Your task to perform on an android device: Open battery settings Image 0: 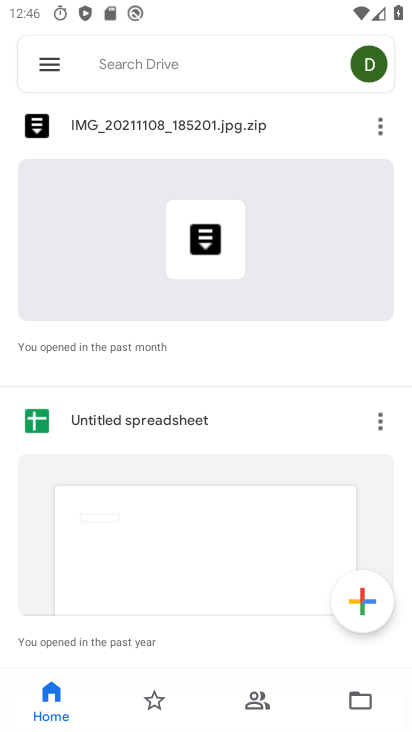
Step 0: press back button
Your task to perform on an android device: Open battery settings Image 1: 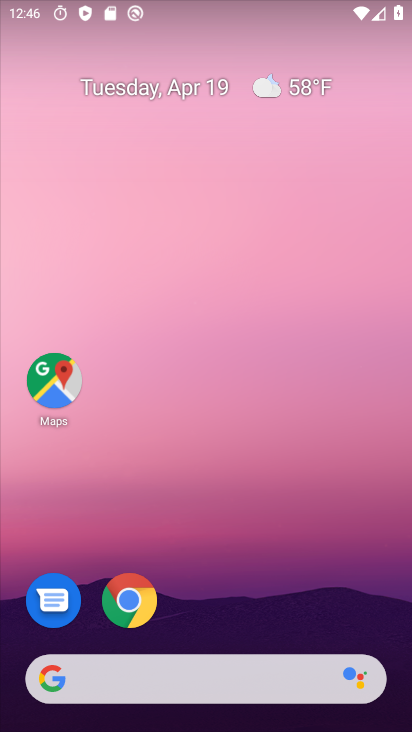
Step 1: drag from (156, 693) to (260, 293)
Your task to perform on an android device: Open battery settings Image 2: 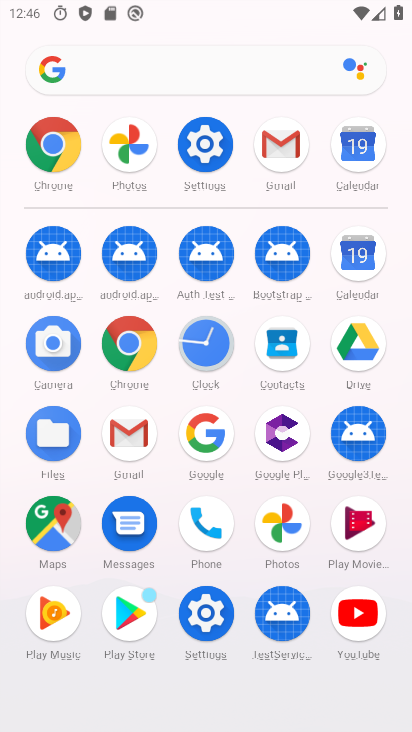
Step 2: click (191, 147)
Your task to perform on an android device: Open battery settings Image 3: 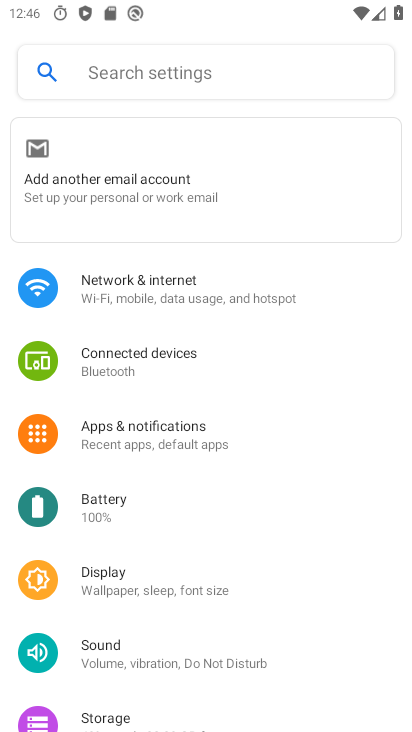
Step 3: click (177, 66)
Your task to perform on an android device: Open battery settings Image 4: 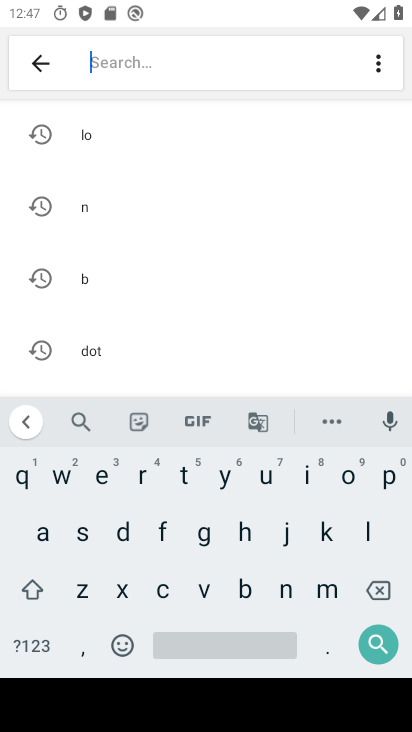
Step 4: click (109, 273)
Your task to perform on an android device: Open battery settings Image 5: 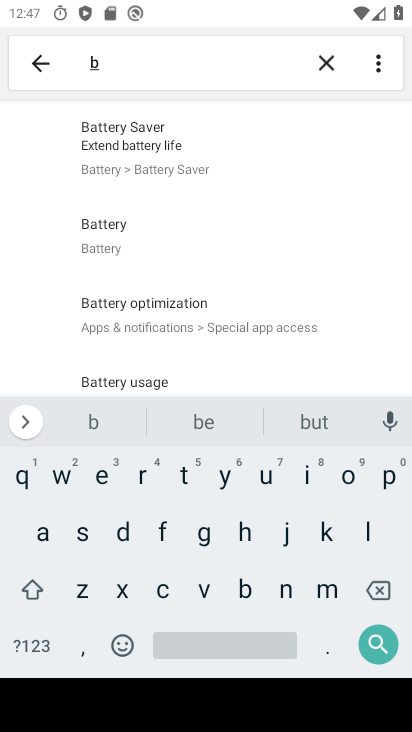
Step 5: click (107, 240)
Your task to perform on an android device: Open battery settings Image 6: 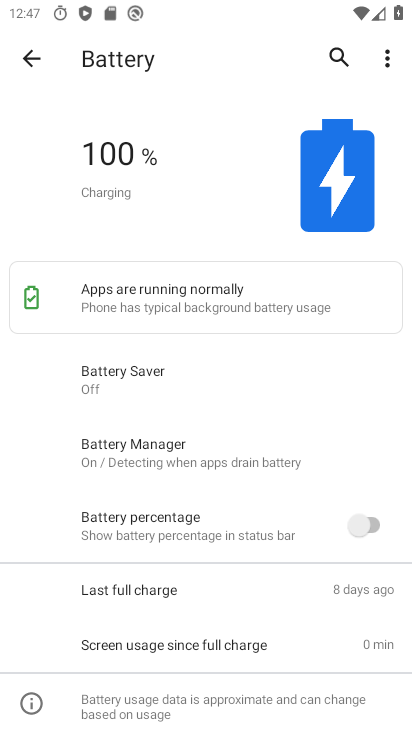
Step 6: task complete